Your task to perform on an android device: turn on data saver in the chrome app Image 0: 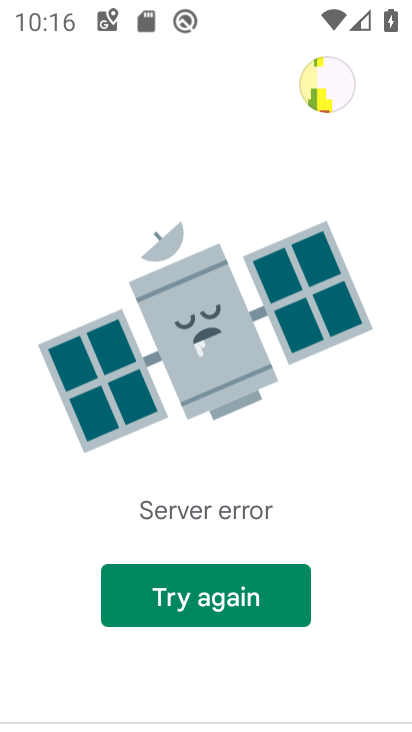
Step 0: press home button
Your task to perform on an android device: turn on data saver in the chrome app Image 1: 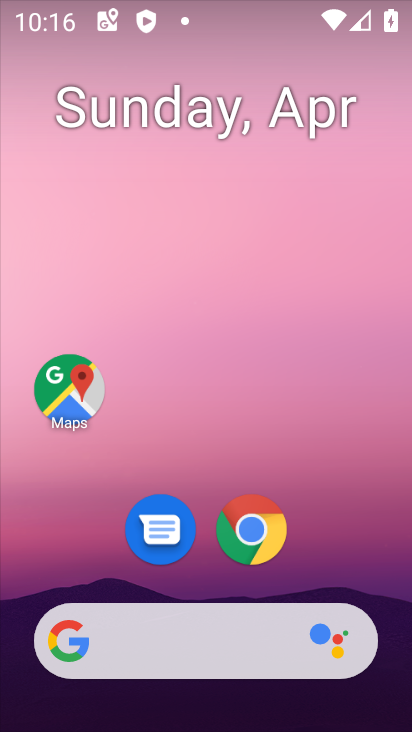
Step 1: click (250, 547)
Your task to perform on an android device: turn on data saver in the chrome app Image 2: 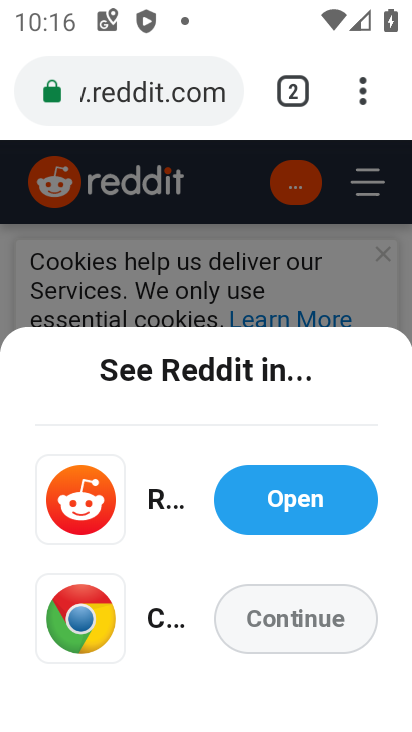
Step 2: click (368, 87)
Your task to perform on an android device: turn on data saver in the chrome app Image 3: 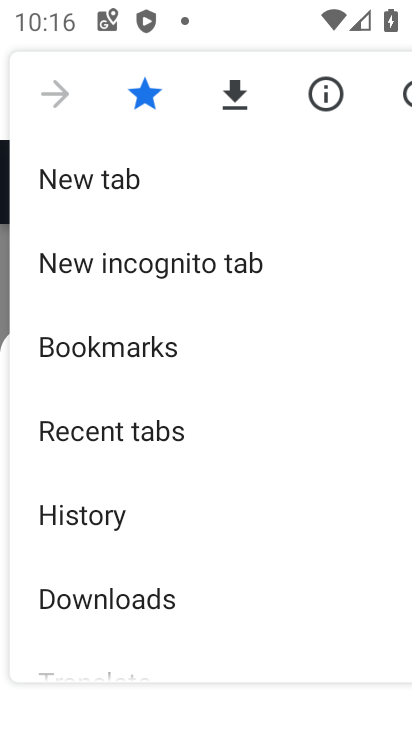
Step 3: drag from (124, 649) to (245, 226)
Your task to perform on an android device: turn on data saver in the chrome app Image 4: 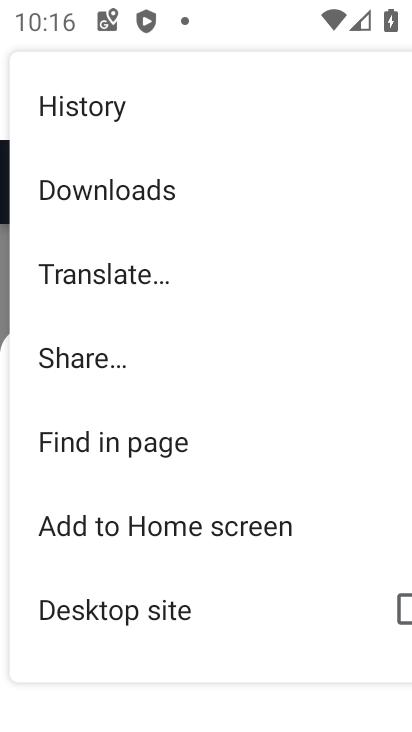
Step 4: drag from (203, 542) to (255, 171)
Your task to perform on an android device: turn on data saver in the chrome app Image 5: 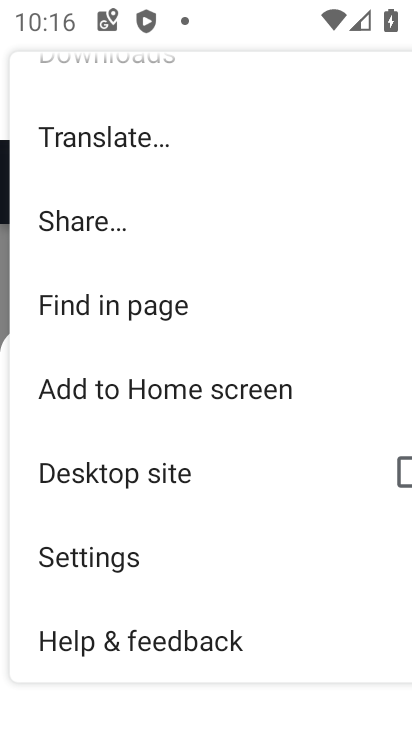
Step 5: click (126, 553)
Your task to perform on an android device: turn on data saver in the chrome app Image 6: 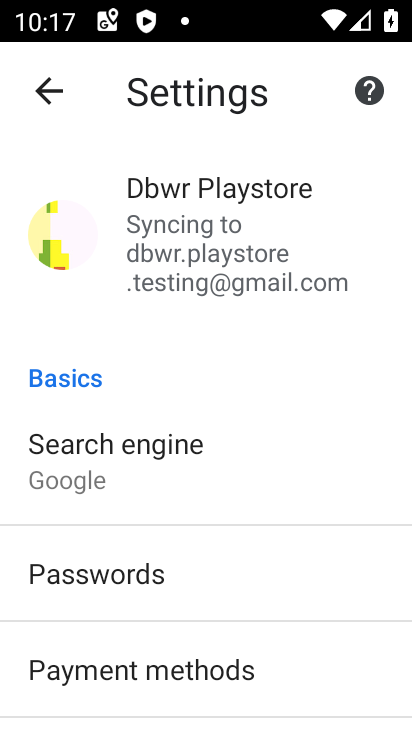
Step 6: drag from (184, 557) to (255, 164)
Your task to perform on an android device: turn on data saver in the chrome app Image 7: 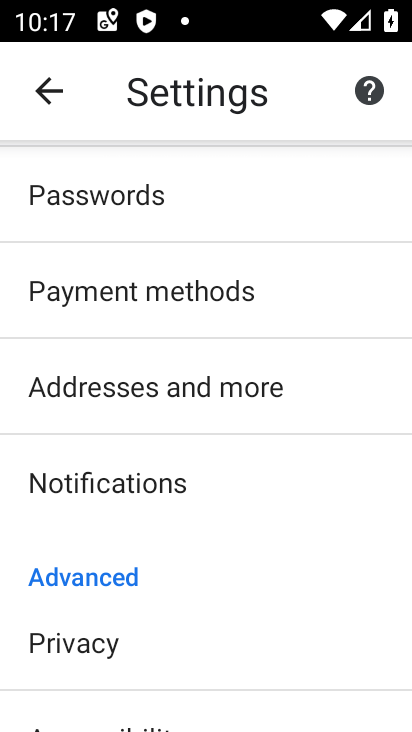
Step 7: drag from (144, 642) to (297, 92)
Your task to perform on an android device: turn on data saver in the chrome app Image 8: 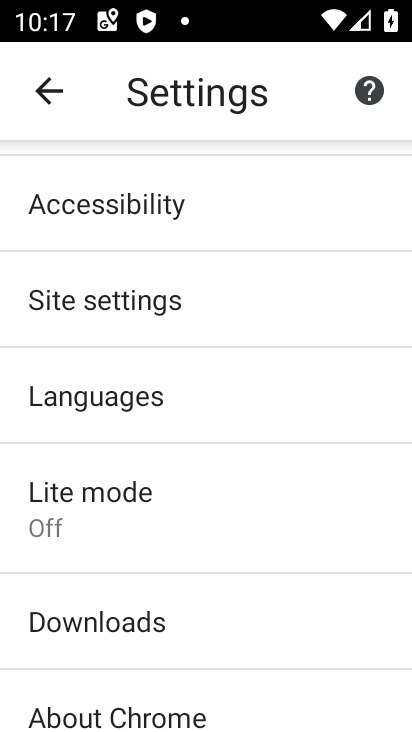
Step 8: click (157, 506)
Your task to perform on an android device: turn on data saver in the chrome app Image 9: 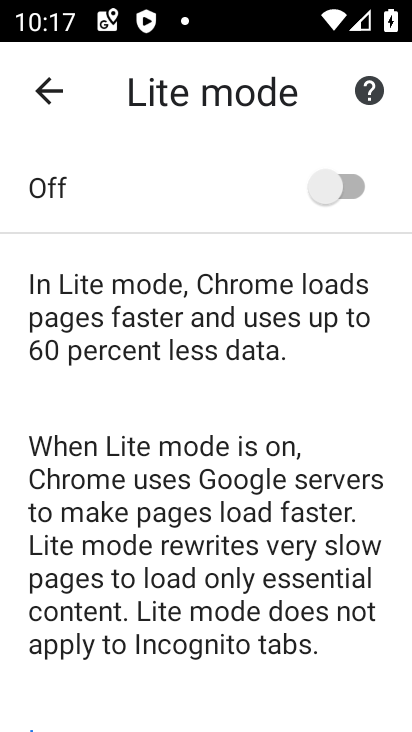
Step 9: click (340, 182)
Your task to perform on an android device: turn on data saver in the chrome app Image 10: 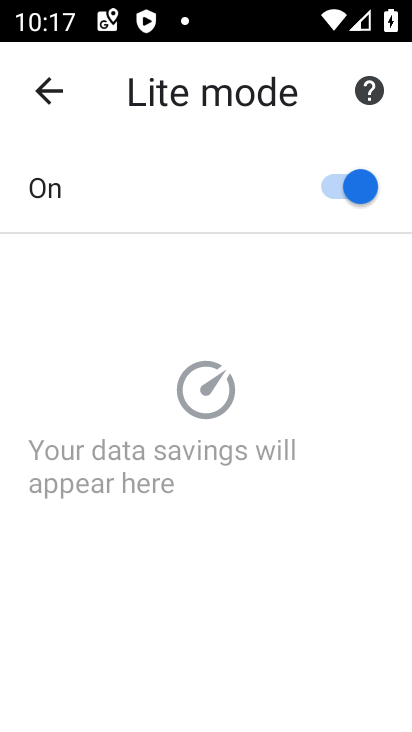
Step 10: task complete